Your task to perform on an android device: Open Yahoo.com Image 0: 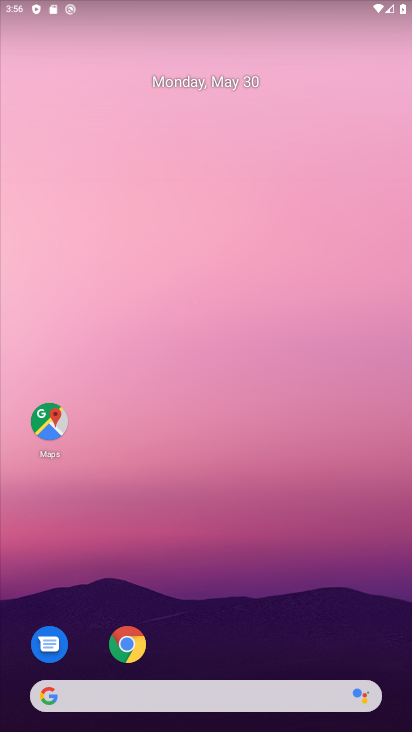
Step 0: click (113, 628)
Your task to perform on an android device: Open Yahoo.com Image 1: 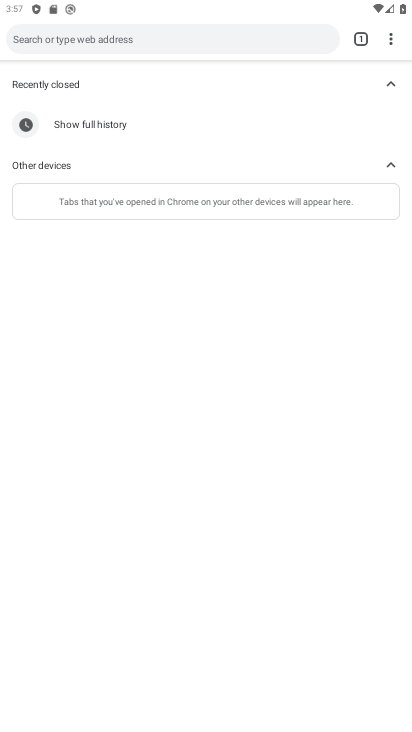
Step 1: click (362, 41)
Your task to perform on an android device: Open Yahoo.com Image 2: 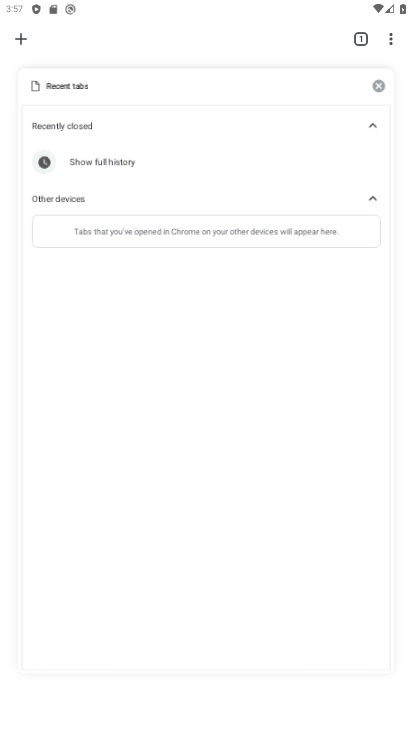
Step 2: click (13, 41)
Your task to perform on an android device: Open Yahoo.com Image 3: 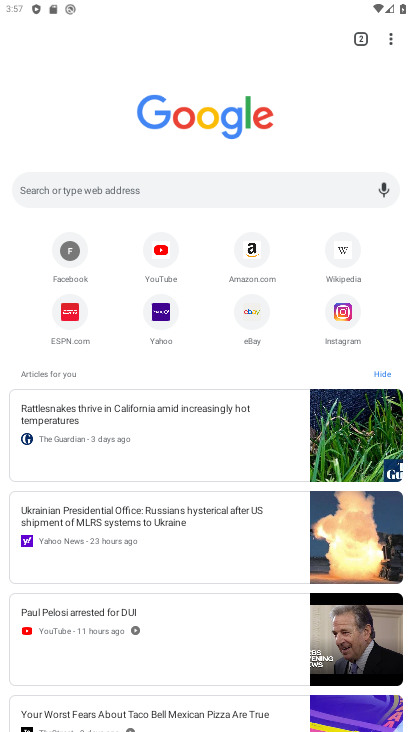
Step 3: click (166, 308)
Your task to perform on an android device: Open Yahoo.com Image 4: 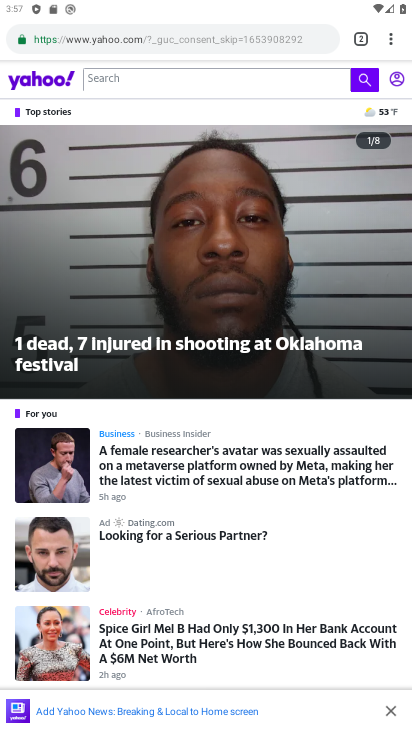
Step 4: task complete